Your task to perform on an android device: make emails show in primary in the gmail app Image 0: 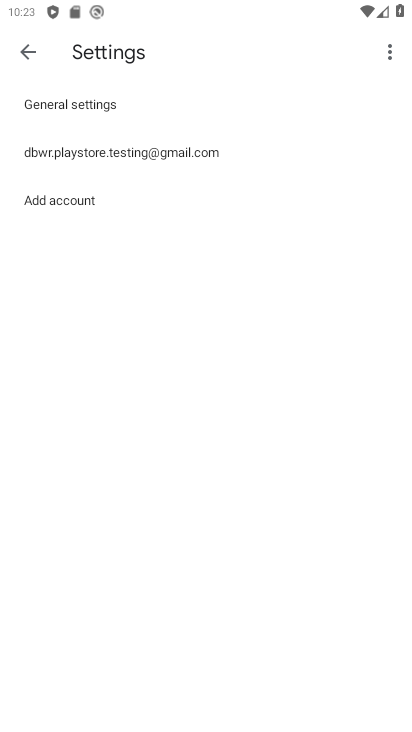
Step 0: press back button
Your task to perform on an android device: make emails show in primary in the gmail app Image 1: 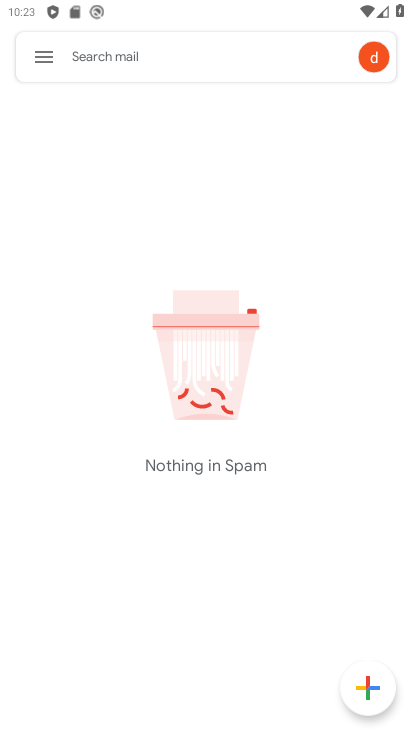
Step 1: press back button
Your task to perform on an android device: make emails show in primary in the gmail app Image 2: 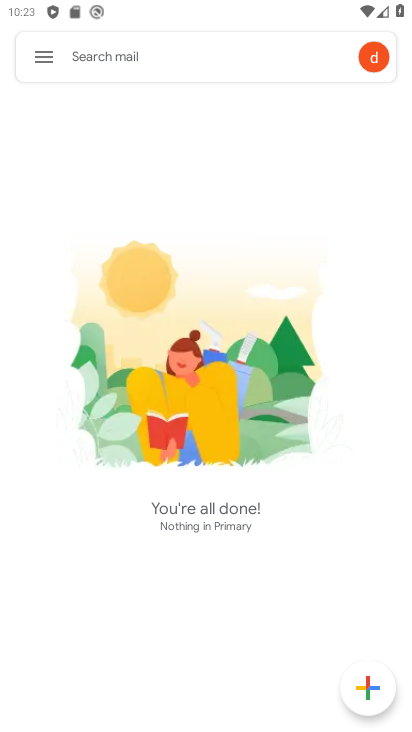
Step 2: click (43, 47)
Your task to perform on an android device: make emails show in primary in the gmail app Image 3: 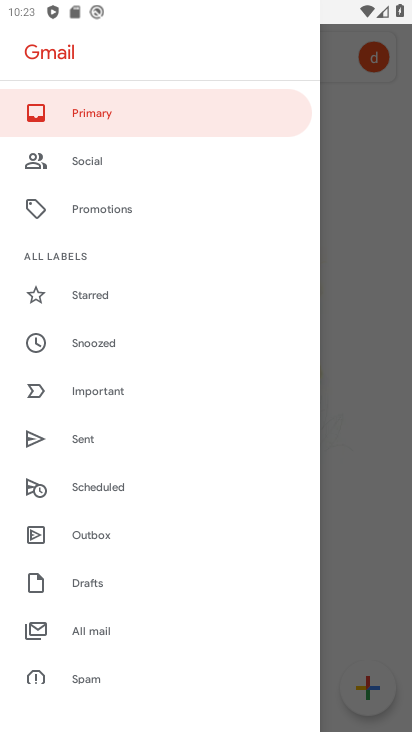
Step 3: task complete